Your task to perform on an android device: toggle show notifications on the lock screen Image 0: 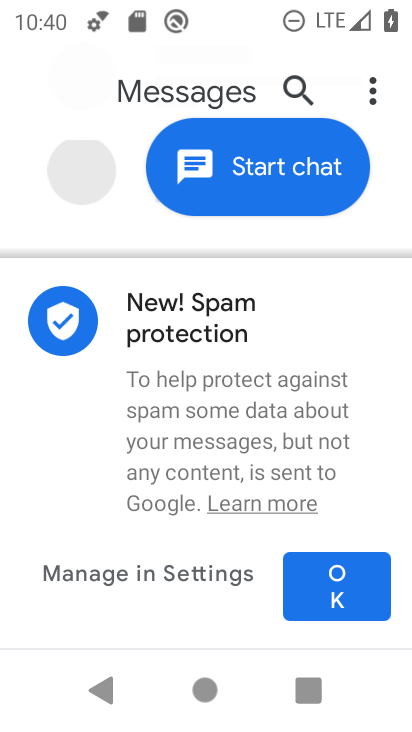
Step 0: press home button
Your task to perform on an android device: toggle show notifications on the lock screen Image 1: 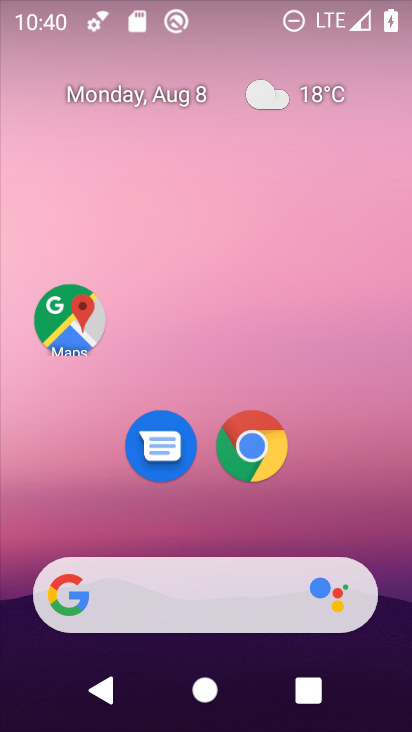
Step 1: drag from (408, 589) to (366, 106)
Your task to perform on an android device: toggle show notifications on the lock screen Image 2: 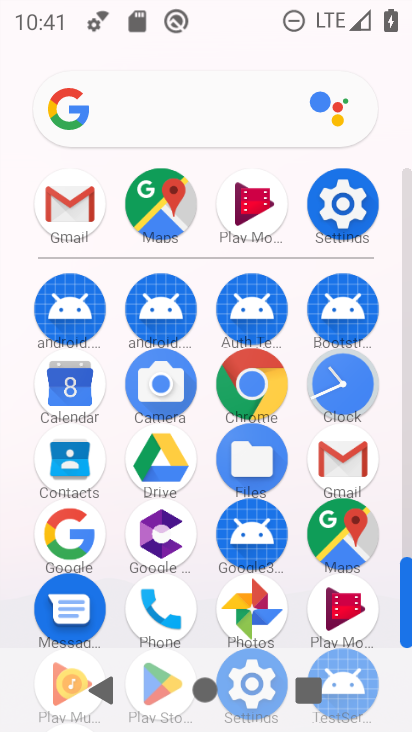
Step 2: click (341, 204)
Your task to perform on an android device: toggle show notifications on the lock screen Image 3: 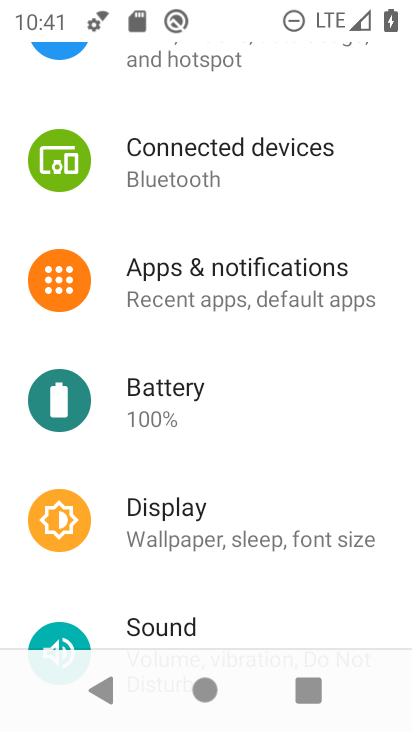
Step 3: click (274, 292)
Your task to perform on an android device: toggle show notifications on the lock screen Image 4: 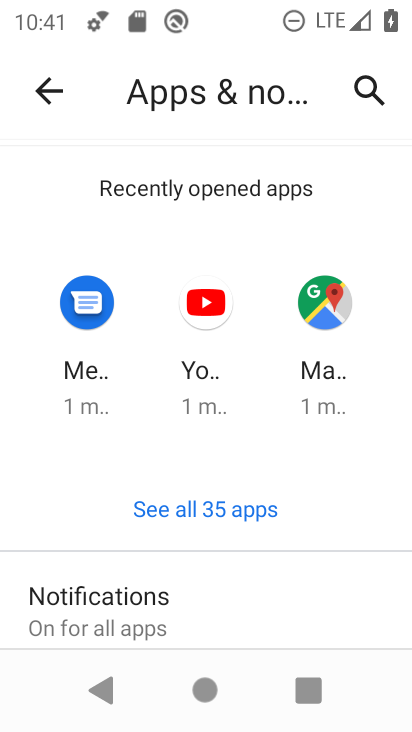
Step 4: drag from (299, 623) to (275, 163)
Your task to perform on an android device: toggle show notifications on the lock screen Image 5: 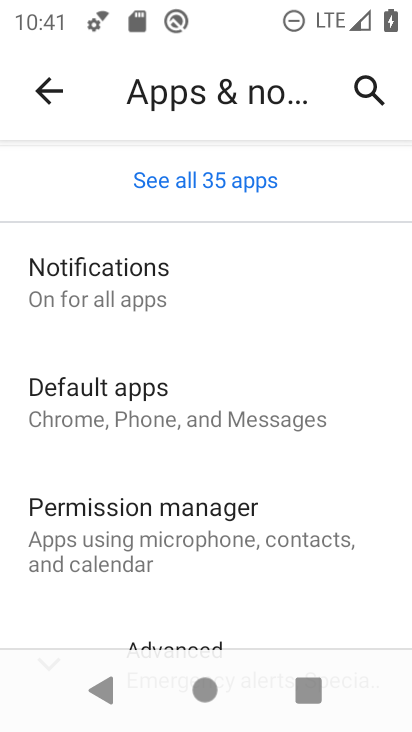
Step 5: click (70, 294)
Your task to perform on an android device: toggle show notifications on the lock screen Image 6: 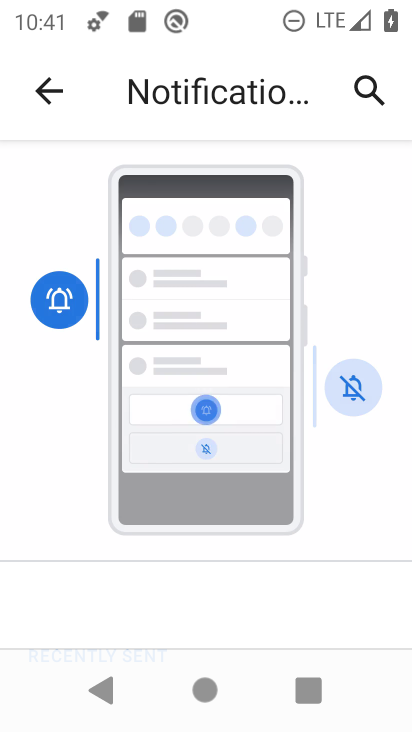
Step 6: drag from (277, 634) to (251, 155)
Your task to perform on an android device: toggle show notifications on the lock screen Image 7: 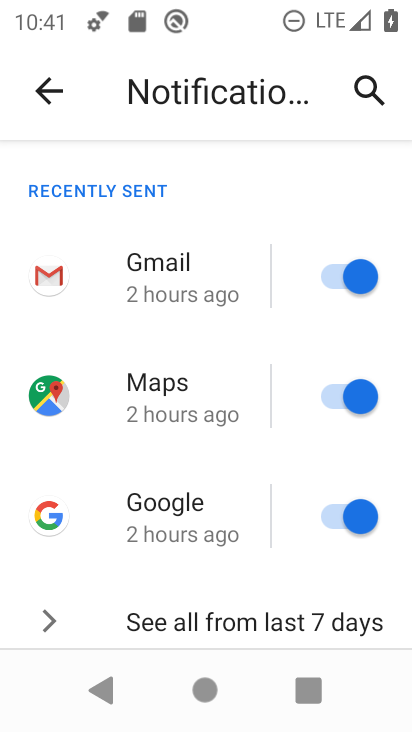
Step 7: drag from (271, 553) to (264, 167)
Your task to perform on an android device: toggle show notifications on the lock screen Image 8: 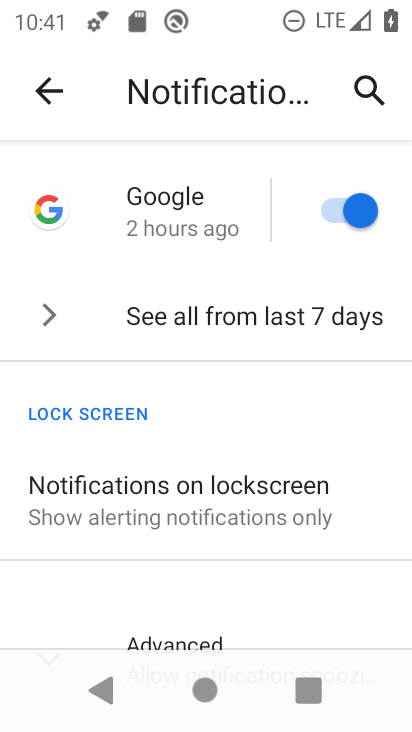
Step 8: click (190, 513)
Your task to perform on an android device: toggle show notifications on the lock screen Image 9: 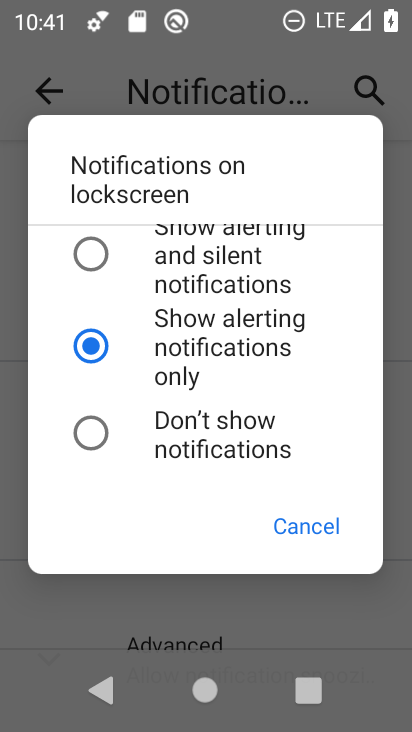
Step 9: click (91, 245)
Your task to perform on an android device: toggle show notifications on the lock screen Image 10: 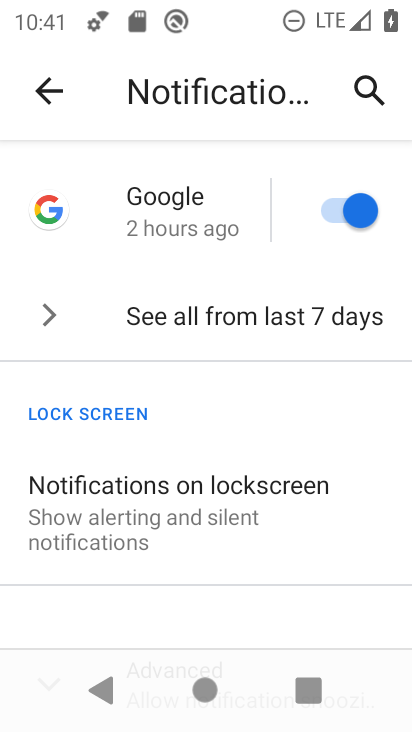
Step 10: task complete